Your task to perform on an android device: change the clock display to show seconds Image 0: 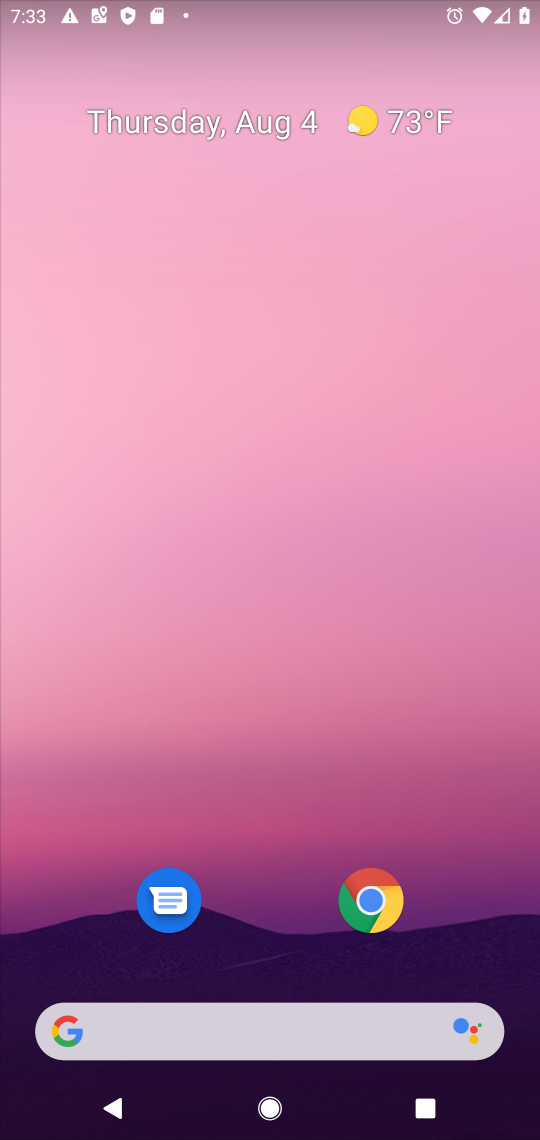
Step 0: drag from (223, 1031) to (274, 125)
Your task to perform on an android device: change the clock display to show seconds Image 1: 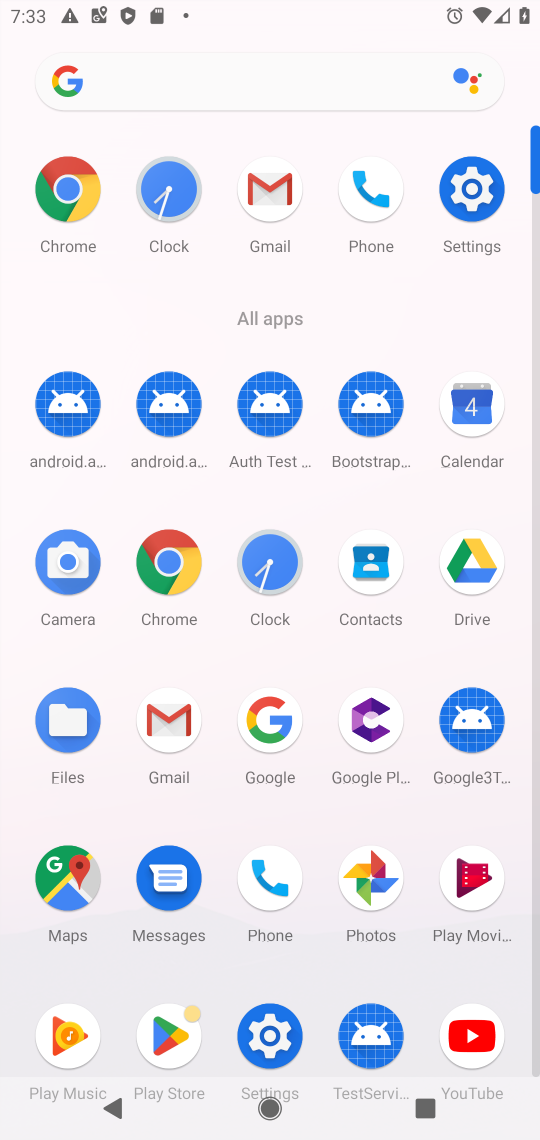
Step 1: click (268, 559)
Your task to perform on an android device: change the clock display to show seconds Image 2: 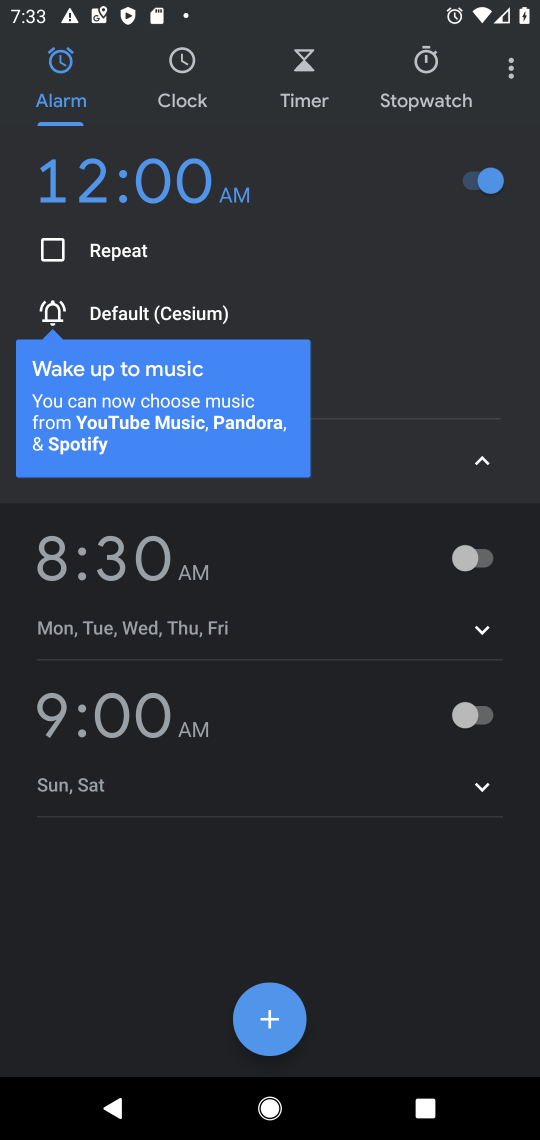
Step 2: click (512, 73)
Your task to perform on an android device: change the clock display to show seconds Image 3: 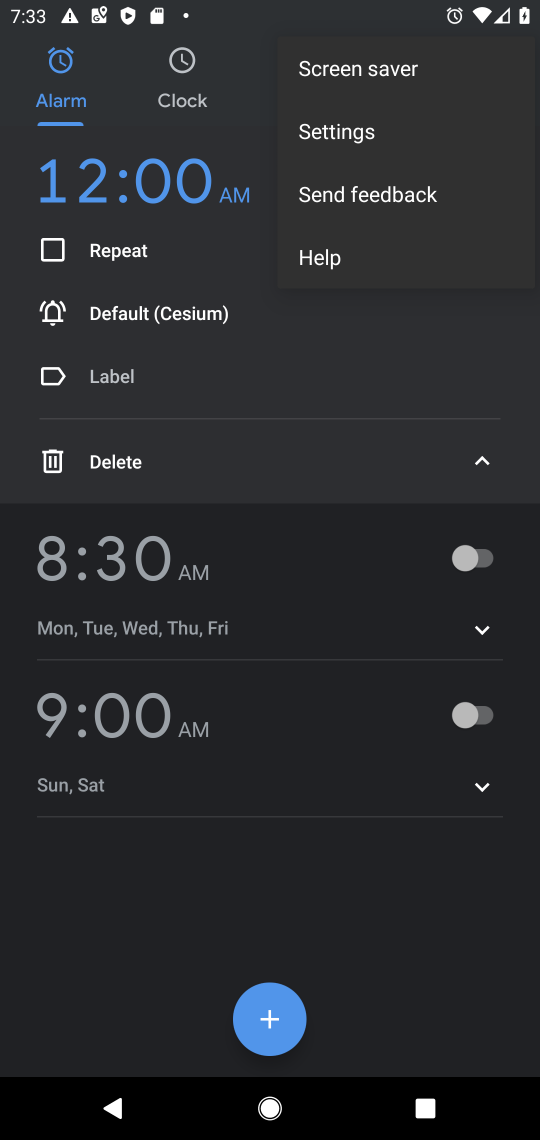
Step 3: click (345, 136)
Your task to perform on an android device: change the clock display to show seconds Image 4: 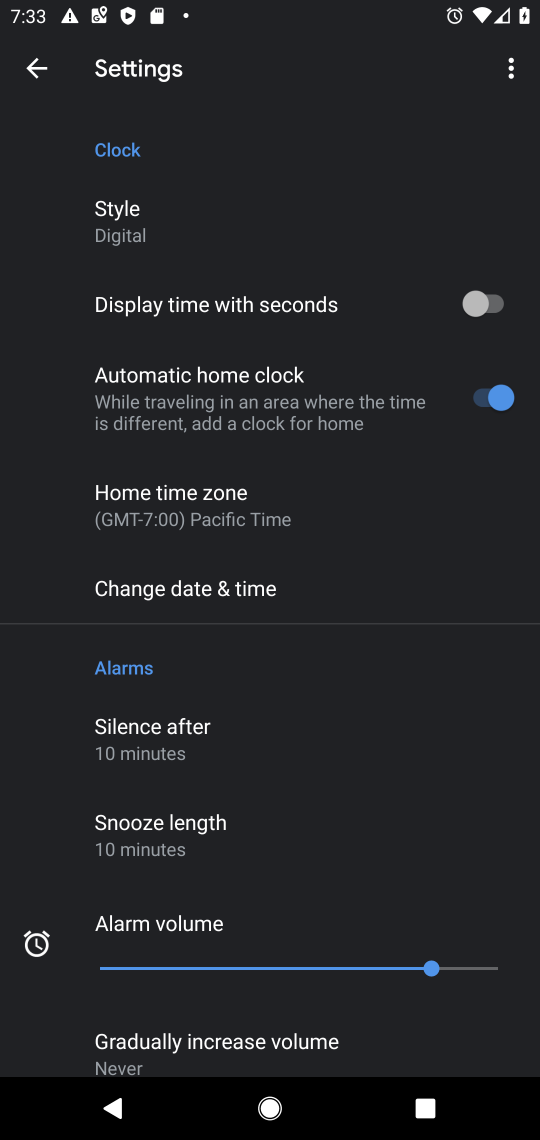
Step 4: click (482, 308)
Your task to perform on an android device: change the clock display to show seconds Image 5: 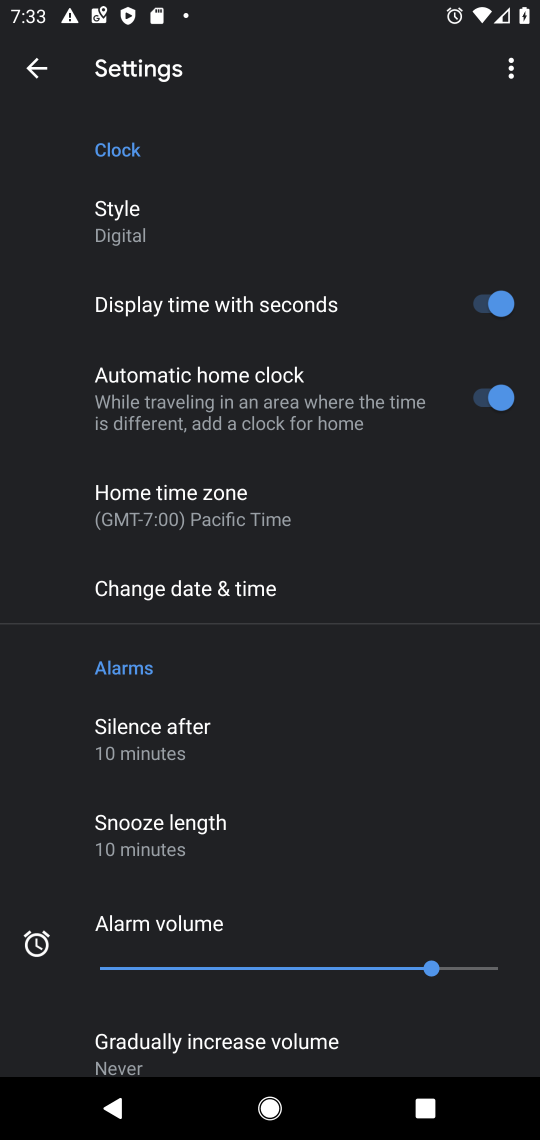
Step 5: task complete